Your task to perform on an android device: snooze an email in the gmail app Image 0: 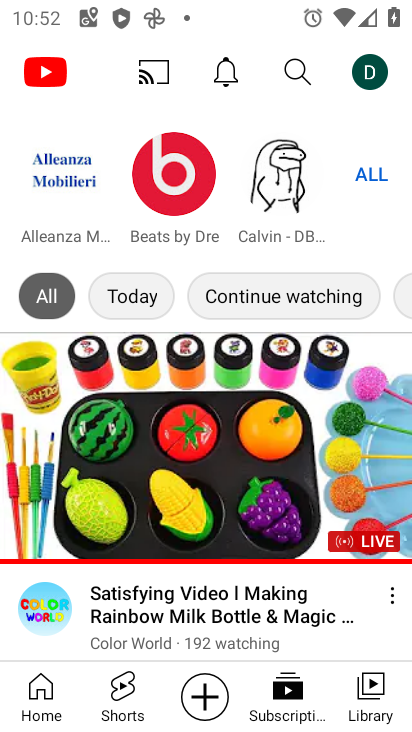
Step 0: press home button
Your task to perform on an android device: snooze an email in the gmail app Image 1: 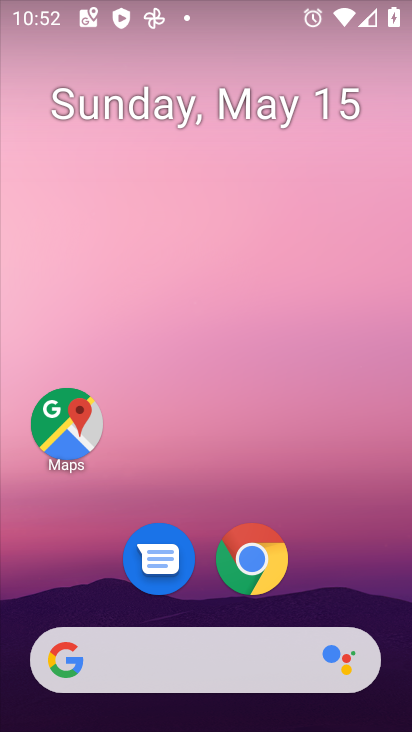
Step 1: drag from (324, 497) to (338, 91)
Your task to perform on an android device: snooze an email in the gmail app Image 2: 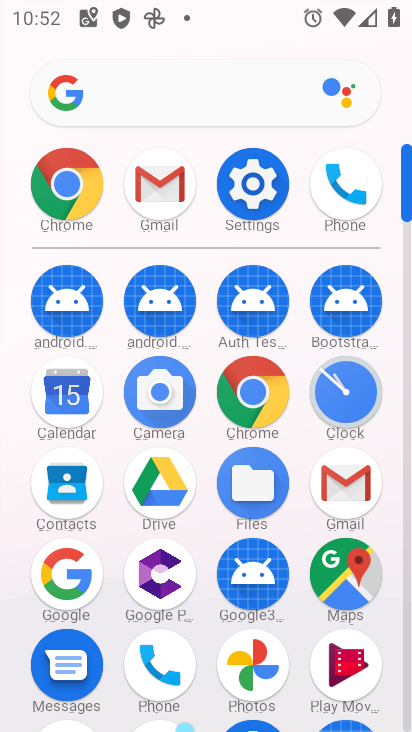
Step 2: click (143, 174)
Your task to perform on an android device: snooze an email in the gmail app Image 3: 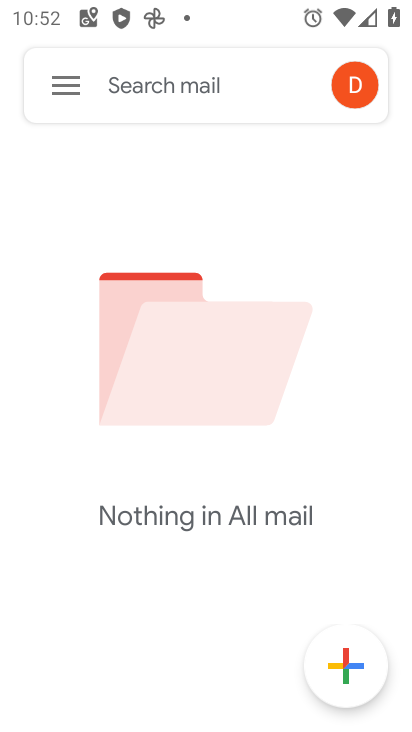
Step 3: click (74, 101)
Your task to perform on an android device: snooze an email in the gmail app Image 4: 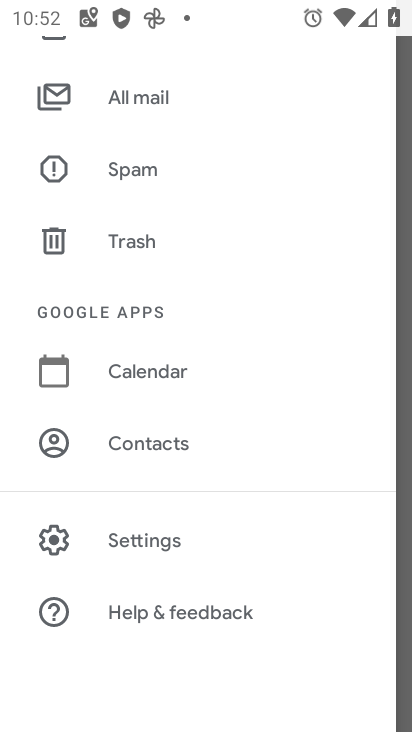
Step 4: drag from (101, 321) to (88, 497)
Your task to perform on an android device: snooze an email in the gmail app Image 5: 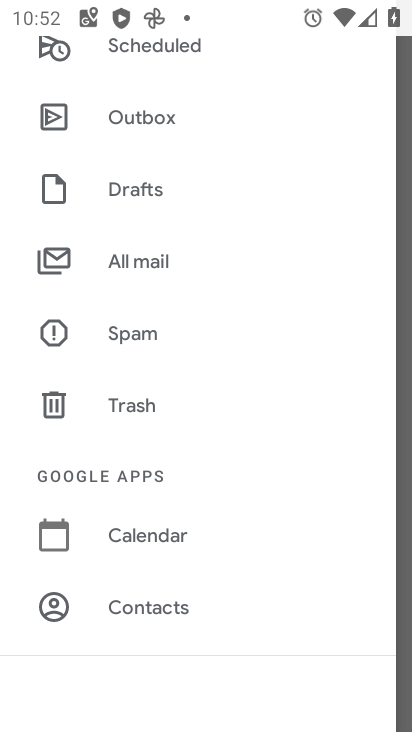
Step 5: drag from (154, 163) to (139, 457)
Your task to perform on an android device: snooze an email in the gmail app Image 6: 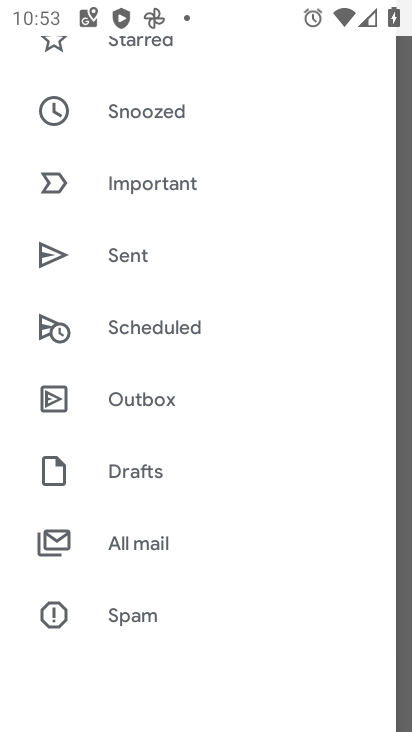
Step 6: click (148, 125)
Your task to perform on an android device: snooze an email in the gmail app Image 7: 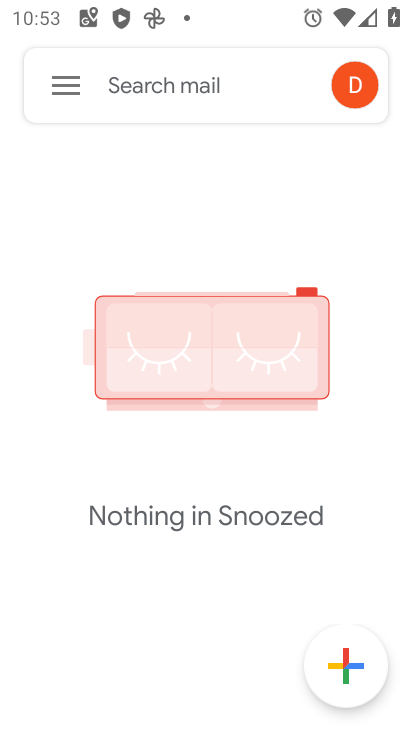
Step 7: task complete